Your task to perform on an android device: Open eBay Image 0: 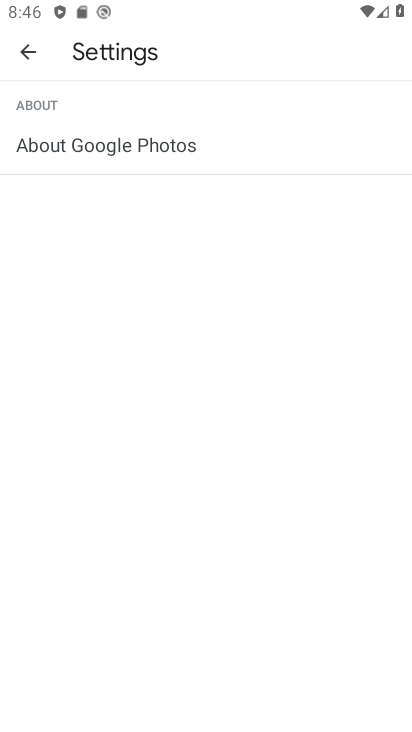
Step 0: press home button
Your task to perform on an android device: Open eBay Image 1: 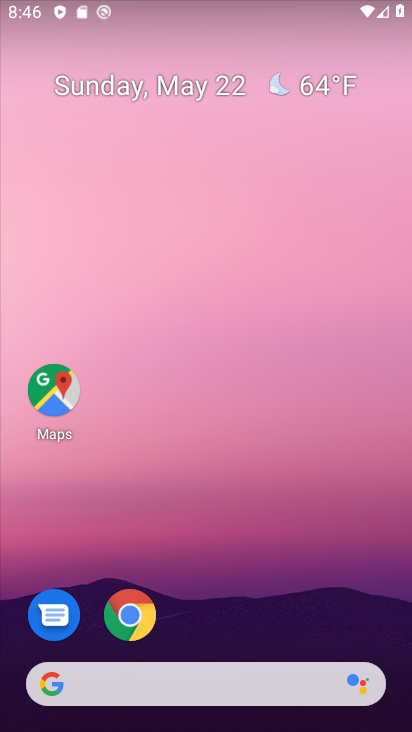
Step 1: drag from (271, 415) to (317, 50)
Your task to perform on an android device: Open eBay Image 2: 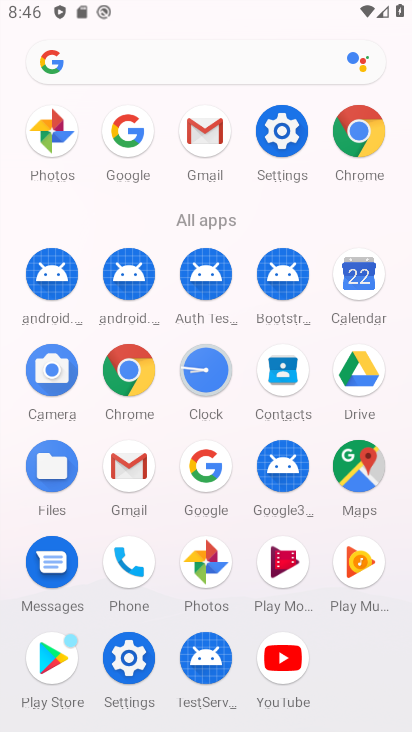
Step 2: click (201, 489)
Your task to perform on an android device: Open eBay Image 3: 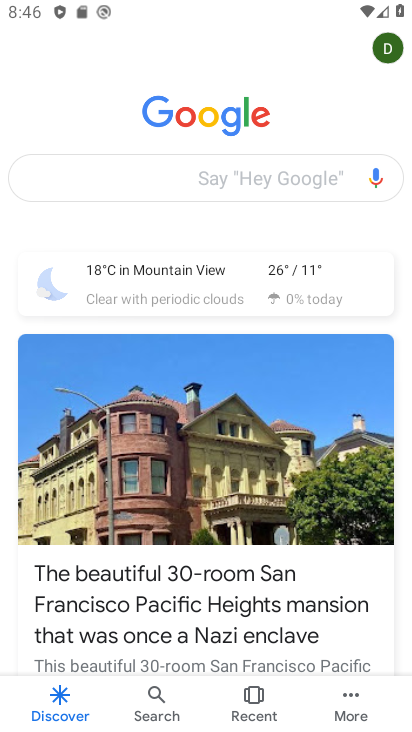
Step 3: click (222, 177)
Your task to perform on an android device: Open eBay Image 4: 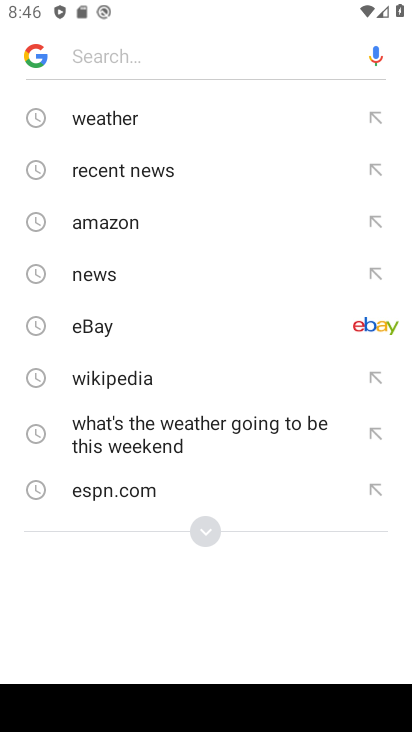
Step 4: click (111, 321)
Your task to perform on an android device: Open eBay Image 5: 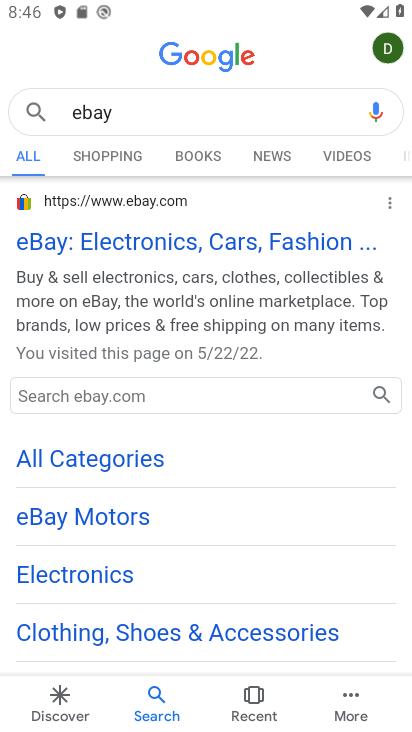
Step 5: click (186, 245)
Your task to perform on an android device: Open eBay Image 6: 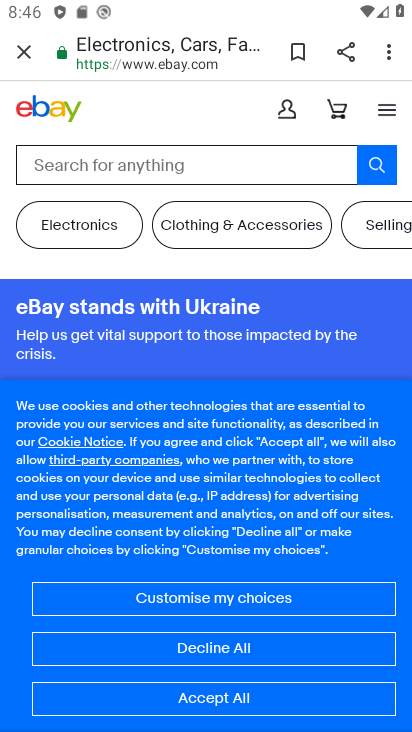
Step 6: task complete